Your task to perform on an android device: change the clock display to digital Image 0: 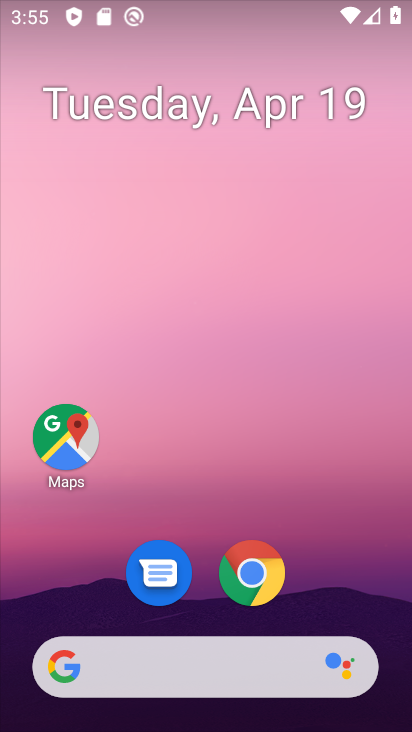
Step 0: drag from (174, 622) to (296, 74)
Your task to perform on an android device: change the clock display to digital Image 1: 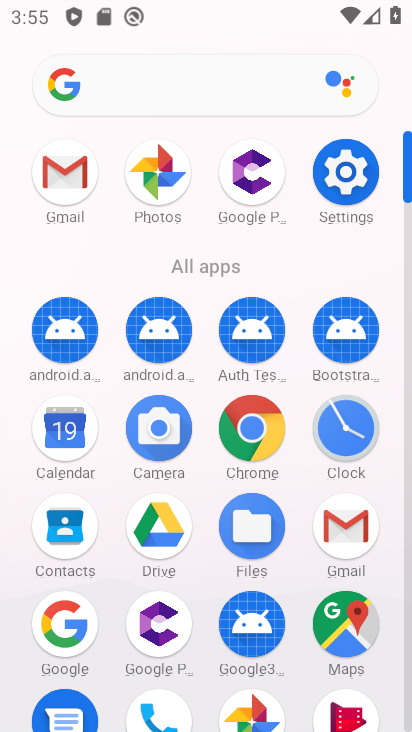
Step 1: click (359, 420)
Your task to perform on an android device: change the clock display to digital Image 2: 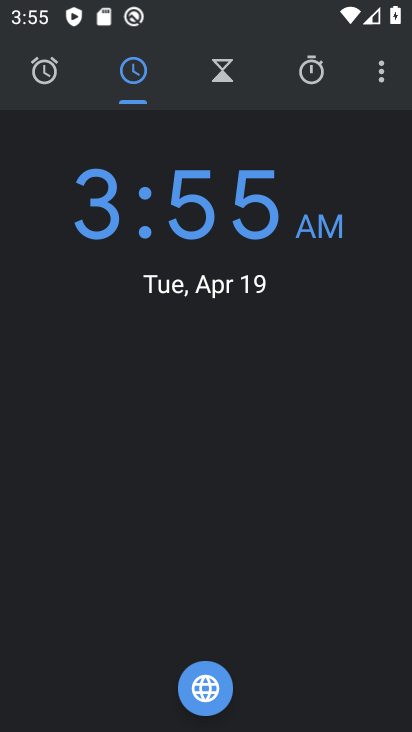
Step 2: click (384, 76)
Your task to perform on an android device: change the clock display to digital Image 3: 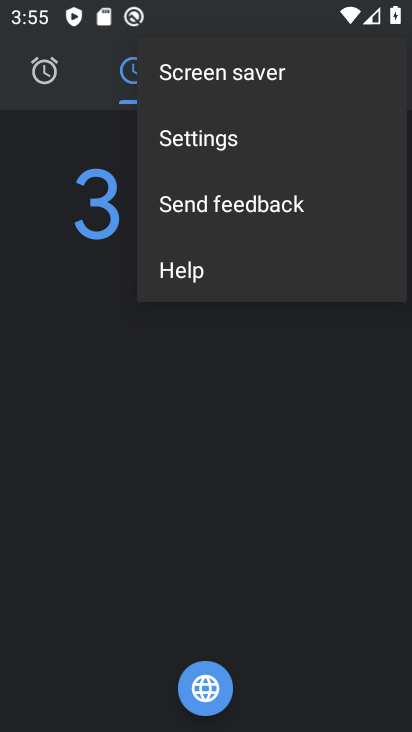
Step 3: click (279, 158)
Your task to perform on an android device: change the clock display to digital Image 4: 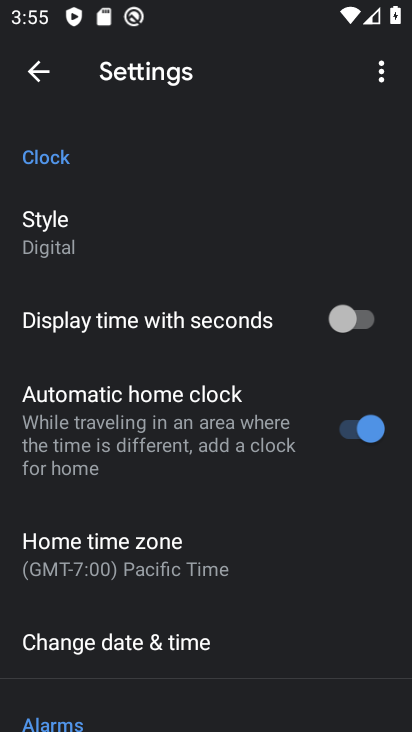
Step 4: task complete